Your task to perform on an android device: Go to battery settings Image 0: 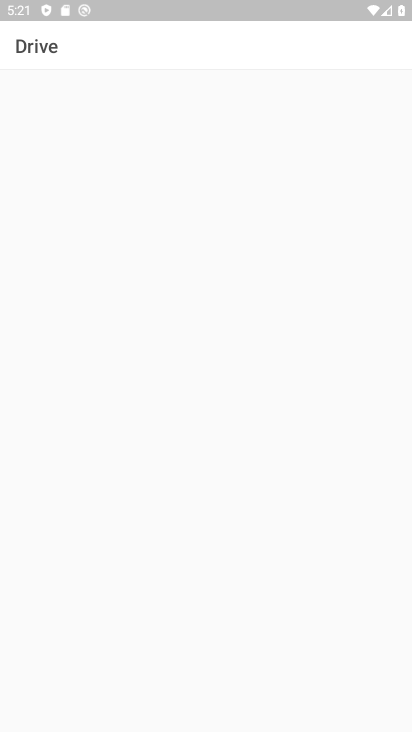
Step 0: press home button
Your task to perform on an android device: Go to battery settings Image 1: 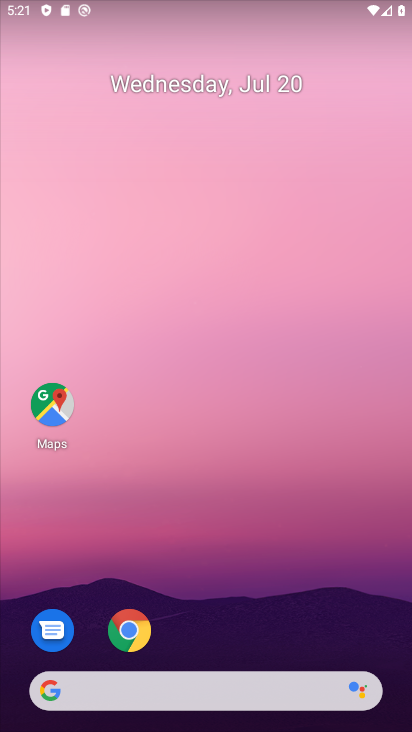
Step 1: drag from (289, 685) to (323, 30)
Your task to perform on an android device: Go to battery settings Image 2: 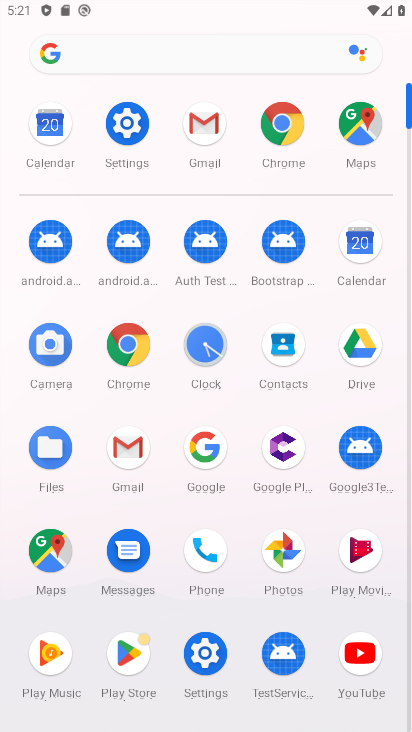
Step 2: click (126, 121)
Your task to perform on an android device: Go to battery settings Image 3: 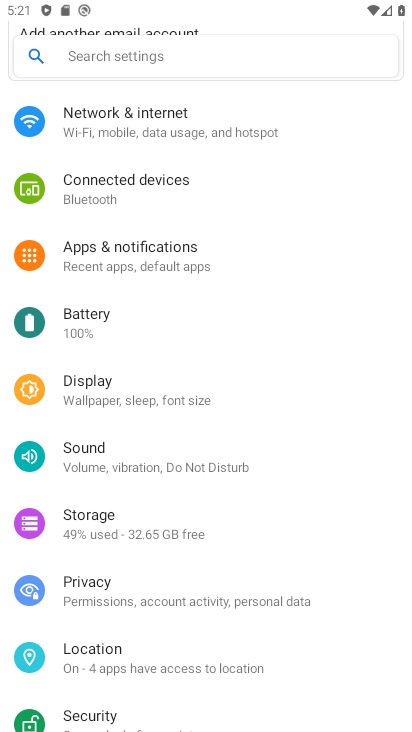
Step 3: click (110, 326)
Your task to perform on an android device: Go to battery settings Image 4: 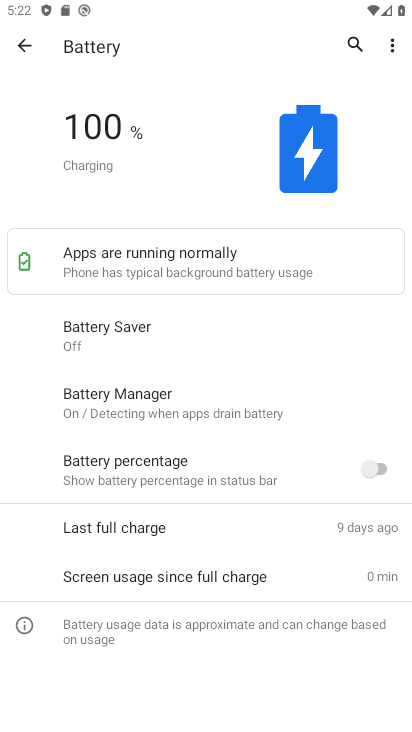
Step 4: task complete